Your task to perform on an android device: set default search engine in the chrome app Image 0: 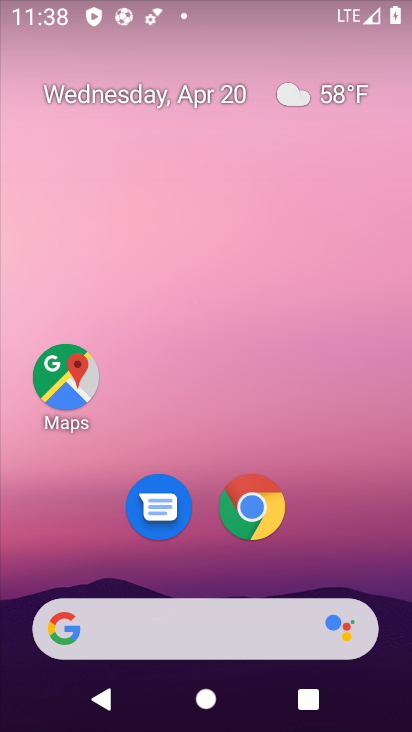
Step 0: drag from (345, 545) to (373, 166)
Your task to perform on an android device: set default search engine in the chrome app Image 1: 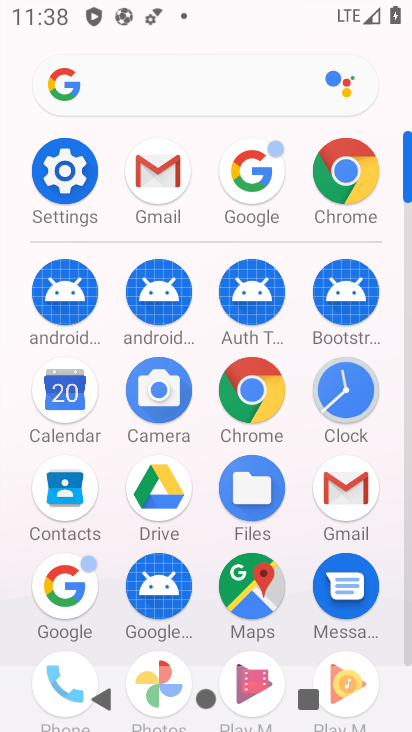
Step 1: click (254, 398)
Your task to perform on an android device: set default search engine in the chrome app Image 2: 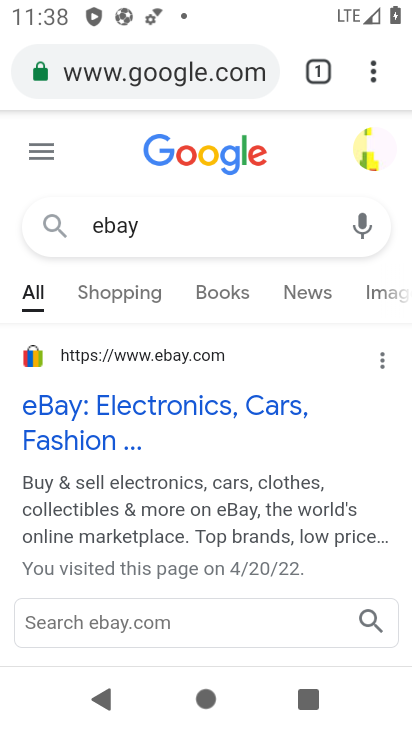
Step 2: click (373, 76)
Your task to perform on an android device: set default search engine in the chrome app Image 3: 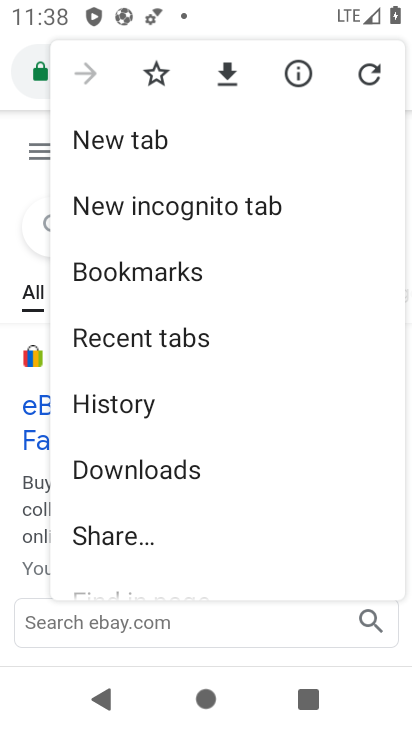
Step 3: drag from (295, 466) to (306, 310)
Your task to perform on an android device: set default search engine in the chrome app Image 4: 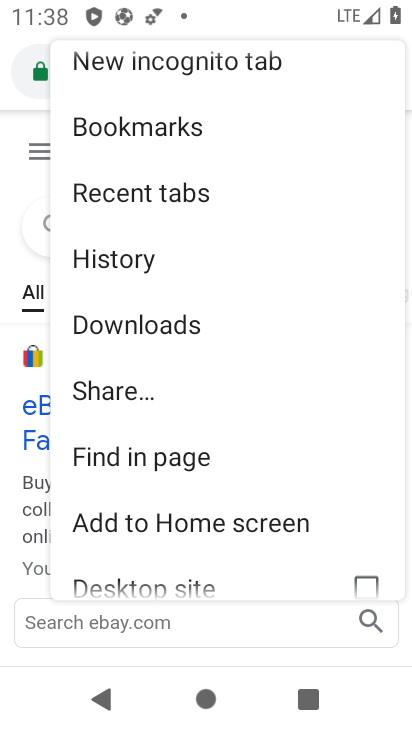
Step 4: drag from (336, 485) to (348, 342)
Your task to perform on an android device: set default search engine in the chrome app Image 5: 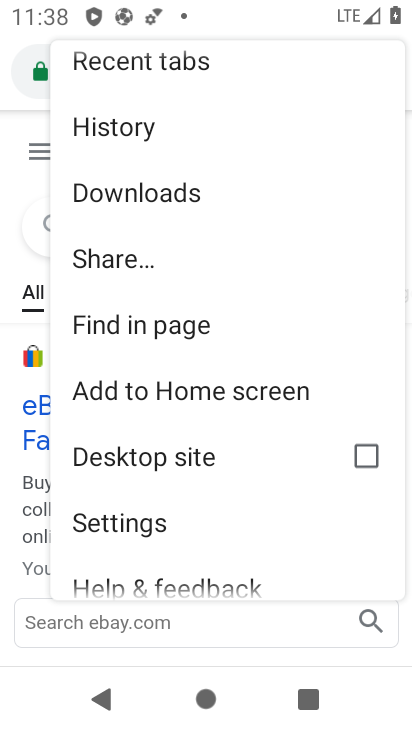
Step 5: click (148, 516)
Your task to perform on an android device: set default search engine in the chrome app Image 6: 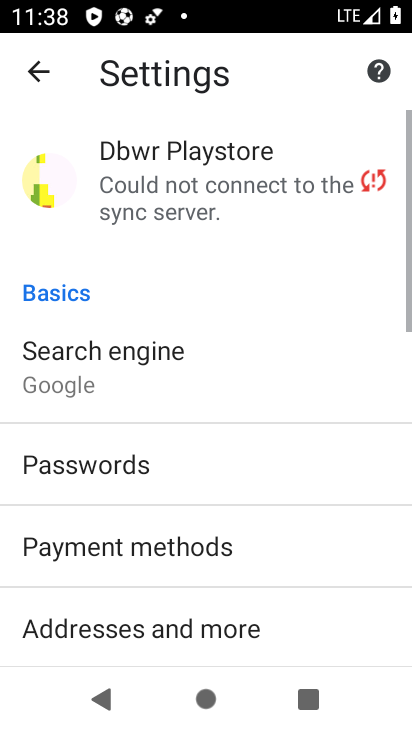
Step 6: drag from (271, 567) to (308, 416)
Your task to perform on an android device: set default search engine in the chrome app Image 7: 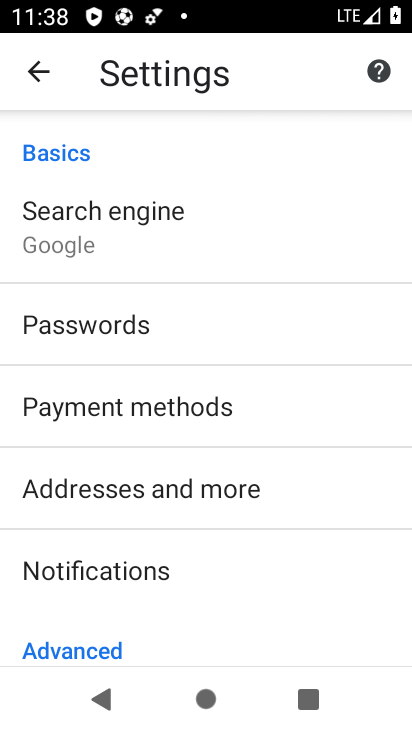
Step 7: drag from (311, 595) to (329, 450)
Your task to perform on an android device: set default search engine in the chrome app Image 8: 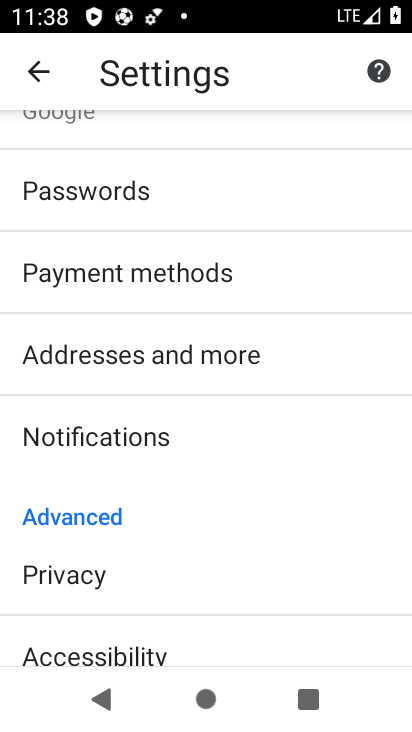
Step 8: drag from (323, 549) to (330, 437)
Your task to perform on an android device: set default search engine in the chrome app Image 9: 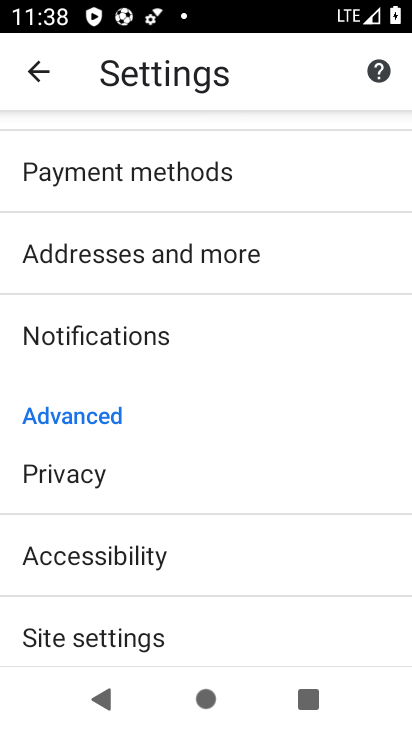
Step 9: drag from (381, 541) to (395, 447)
Your task to perform on an android device: set default search engine in the chrome app Image 10: 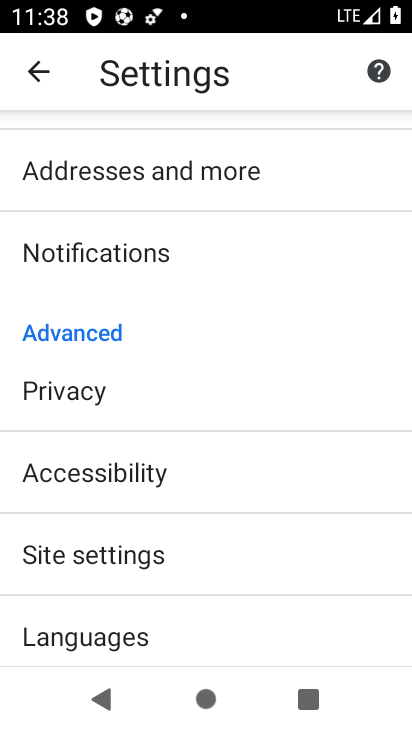
Step 10: drag from (361, 553) to (368, 438)
Your task to perform on an android device: set default search engine in the chrome app Image 11: 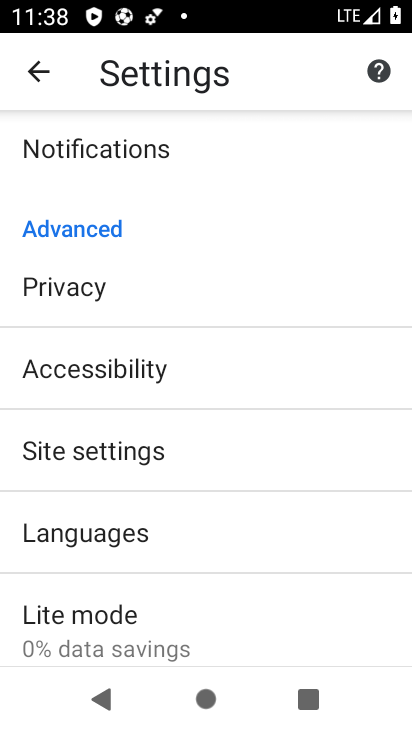
Step 11: drag from (289, 528) to (273, 390)
Your task to perform on an android device: set default search engine in the chrome app Image 12: 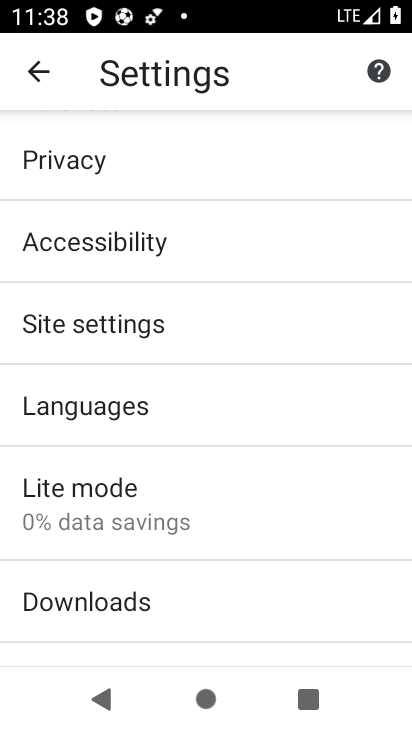
Step 12: drag from (313, 576) to (316, 411)
Your task to perform on an android device: set default search engine in the chrome app Image 13: 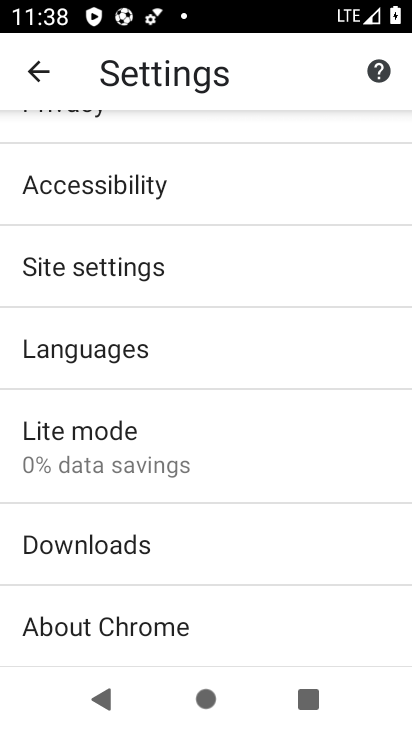
Step 13: drag from (325, 319) to (322, 444)
Your task to perform on an android device: set default search engine in the chrome app Image 14: 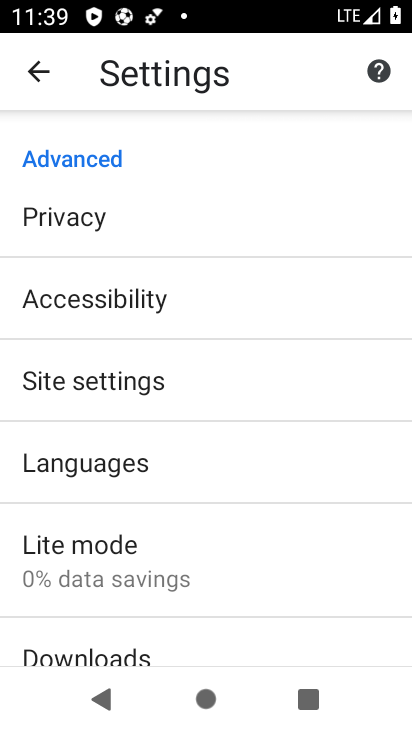
Step 14: drag from (330, 270) to (375, 441)
Your task to perform on an android device: set default search engine in the chrome app Image 15: 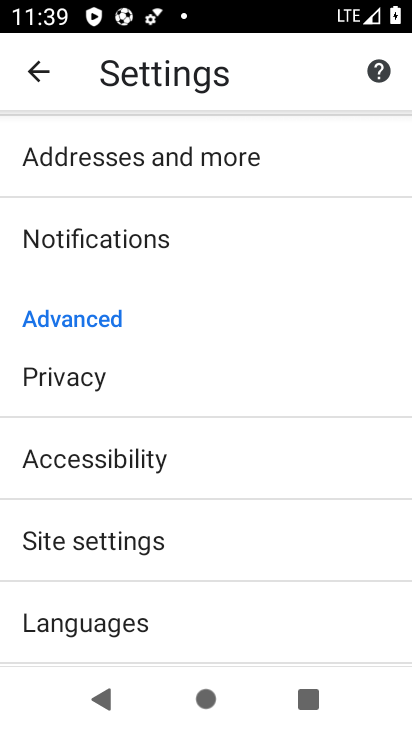
Step 15: drag from (253, 284) to (250, 466)
Your task to perform on an android device: set default search engine in the chrome app Image 16: 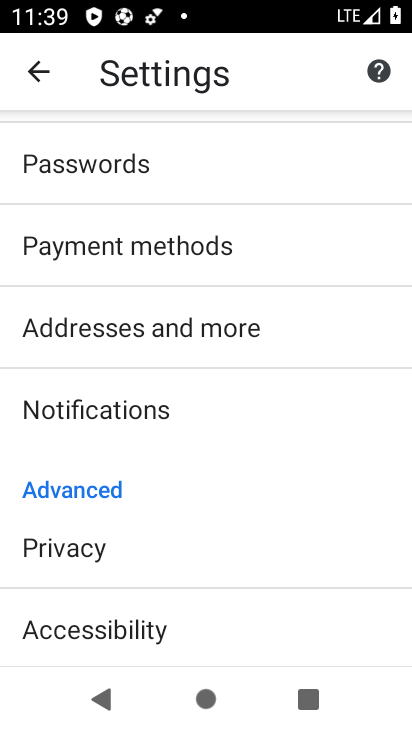
Step 16: drag from (286, 249) to (290, 478)
Your task to perform on an android device: set default search engine in the chrome app Image 17: 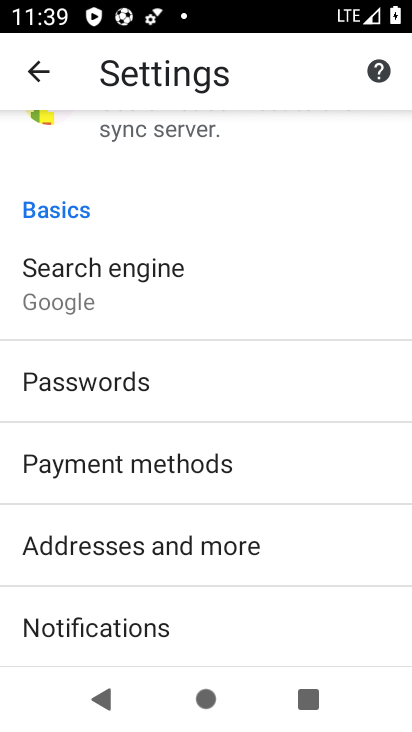
Step 17: click (77, 290)
Your task to perform on an android device: set default search engine in the chrome app Image 18: 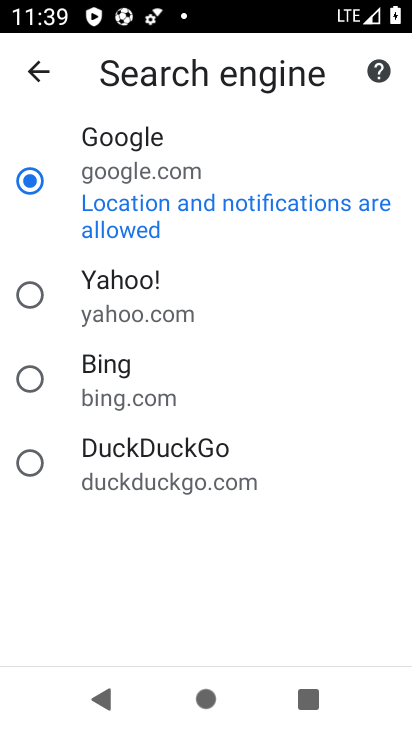
Step 18: click (105, 375)
Your task to perform on an android device: set default search engine in the chrome app Image 19: 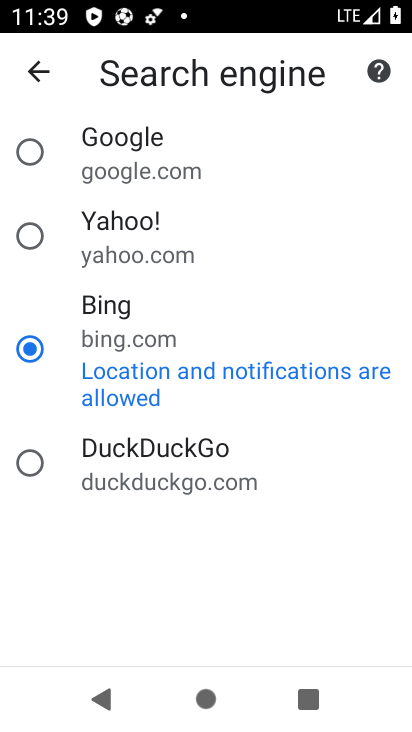
Step 19: task complete